Your task to perform on an android device: add a label to a message in the gmail app Image 0: 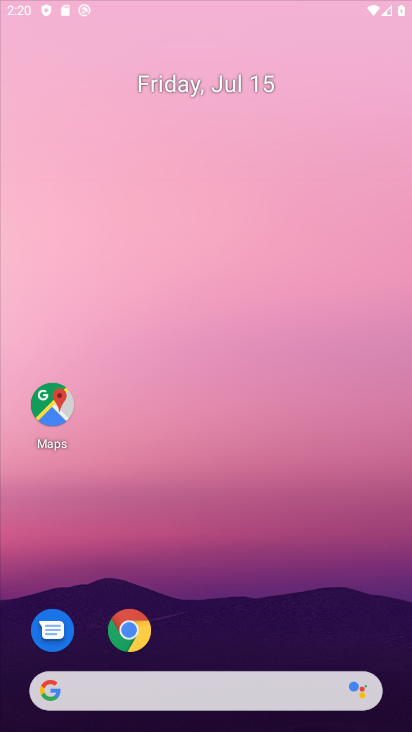
Step 0: drag from (317, 459) to (313, 86)
Your task to perform on an android device: add a label to a message in the gmail app Image 1: 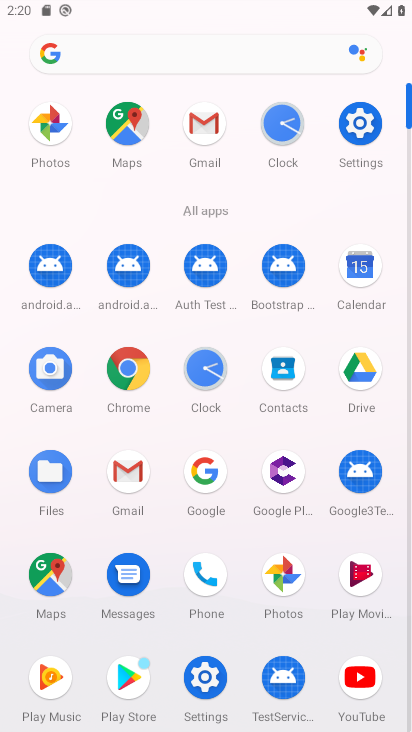
Step 1: click (205, 127)
Your task to perform on an android device: add a label to a message in the gmail app Image 2: 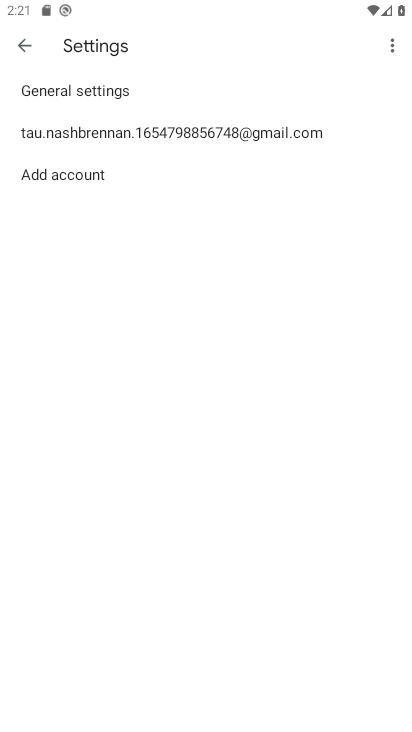
Step 2: click (28, 46)
Your task to perform on an android device: add a label to a message in the gmail app Image 3: 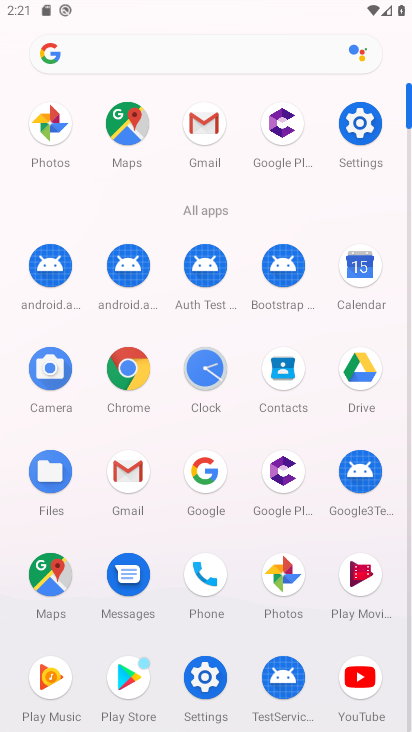
Step 3: click (196, 117)
Your task to perform on an android device: add a label to a message in the gmail app Image 4: 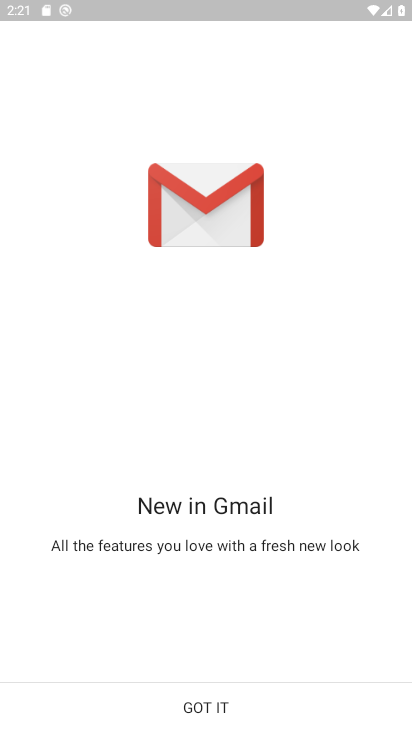
Step 4: click (220, 709)
Your task to perform on an android device: add a label to a message in the gmail app Image 5: 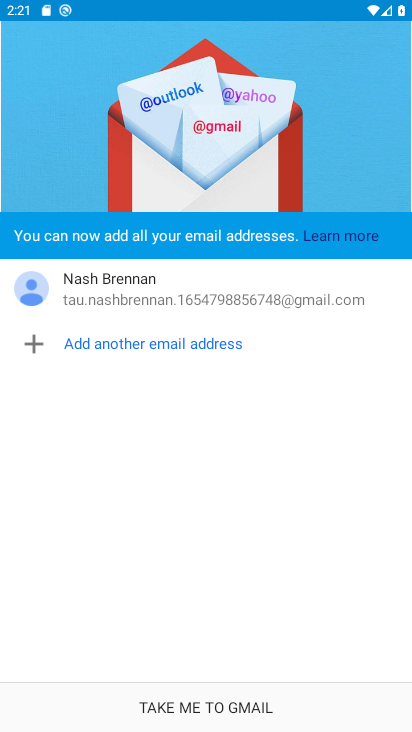
Step 5: click (230, 705)
Your task to perform on an android device: add a label to a message in the gmail app Image 6: 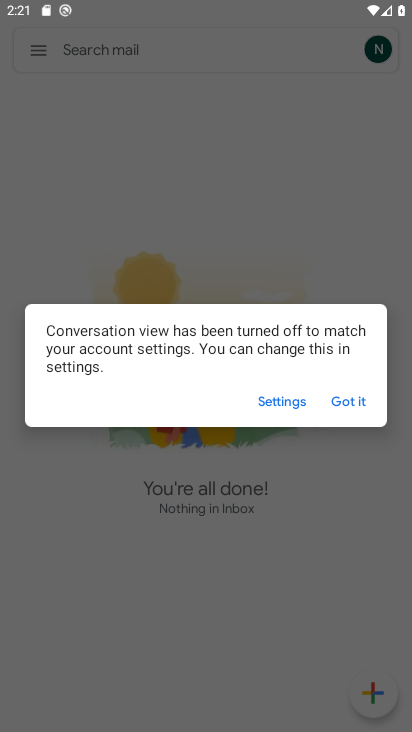
Step 6: click (351, 402)
Your task to perform on an android device: add a label to a message in the gmail app Image 7: 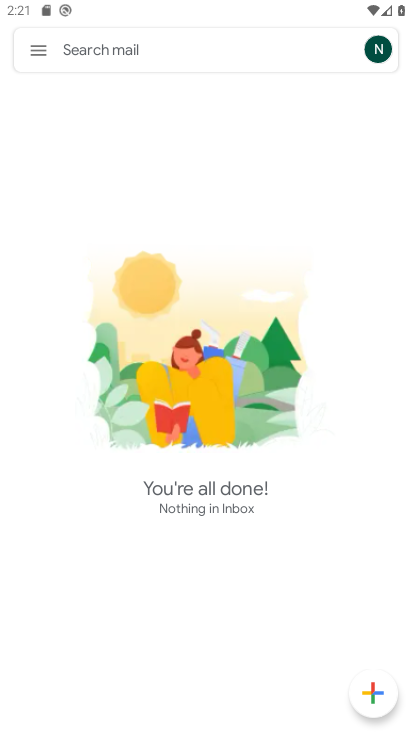
Step 7: task complete